Your task to perform on an android device: Search for bose soundlink on ebay, select the first entry, add it to the cart, then select checkout. Image 0: 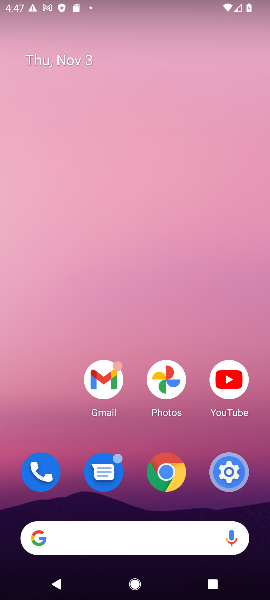
Step 0: click (157, 486)
Your task to perform on an android device: Search for bose soundlink on ebay, select the first entry, add it to the cart, then select checkout. Image 1: 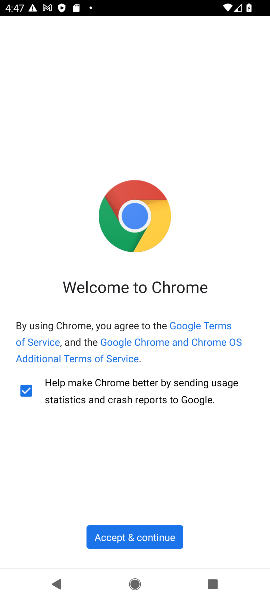
Step 1: click (154, 543)
Your task to perform on an android device: Search for bose soundlink on ebay, select the first entry, add it to the cart, then select checkout. Image 2: 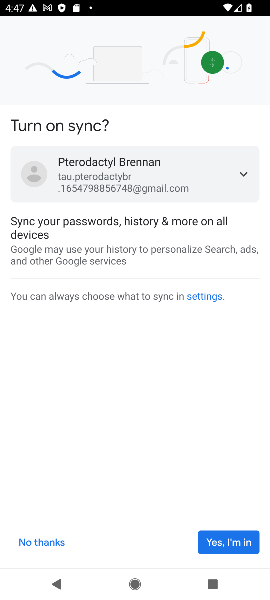
Step 2: click (250, 540)
Your task to perform on an android device: Search for bose soundlink on ebay, select the first entry, add it to the cart, then select checkout. Image 3: 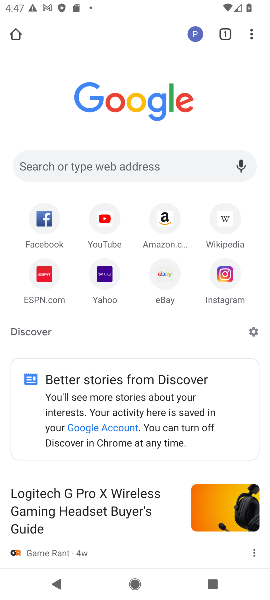
Step 3: click (84, 157)
Your task to perform on an android device: Search for bose soundlink on ebay, select the first entry, add it to the cart, then select checkout. Image 4: 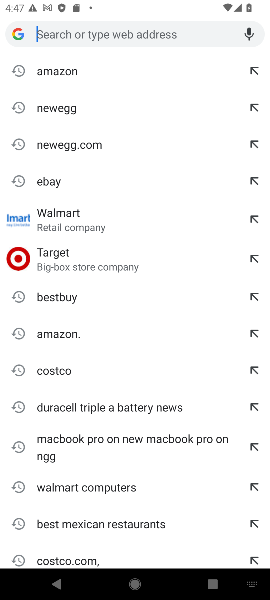
Step 4: type "ebay"
Your task to perform on an android device: Search for bose soundlink on ebay, select the first entry, add it to the cart, then select checkout. Image 5: 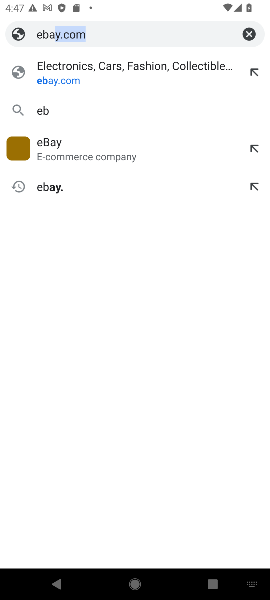
Step 5: type ""
Your task to perform on an android device: Search for bose soundlink on ebay, select the first entry, add it to the cart, then select checkout. Image 6: 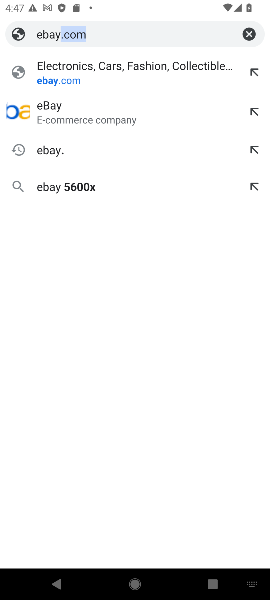
Step 6: click (140, 56)
Your task to perform on an android device: Search for bose soundlink on ebay, select the first entry, add it to the cart, then select checkout. Image 7: 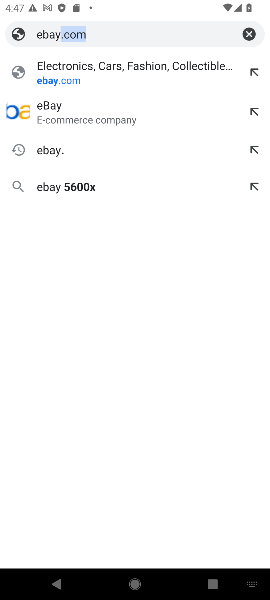
Step 7: click (139, 65)
Your task to perform on an android device: Search for bose soundlink on ebay, select the first entry, add it to the cart, then select checkout. Image 8: 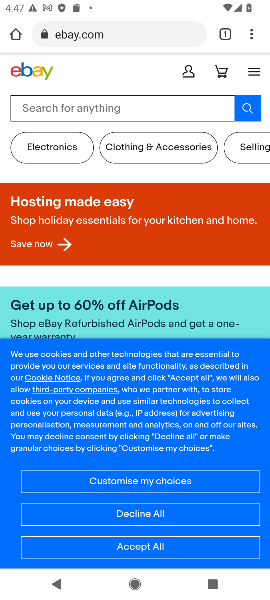
Step 8: click (137, 99)
Your task to perform on an android device: Search for bose soundlink on ebay, select the first entry, add it to the cart, then select checkout. Image 9: 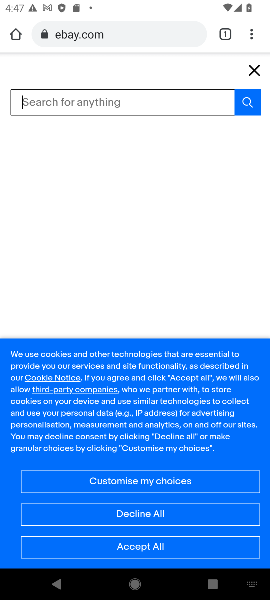
Step 9: click (93, 549)
Your task to perform on an android device: Search for bose soundlink on ebay, select the first entry, add it to the cart, then select checkout. Image 10: 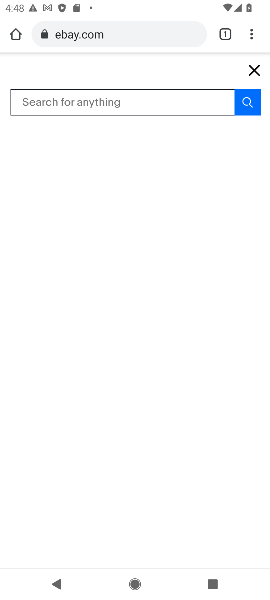
Step 10: click (67, 102)
Your task to perform on an android device: Search for bose soundlink on ebay, select the first entry, add it to the cart, then select checkout. Image 11: 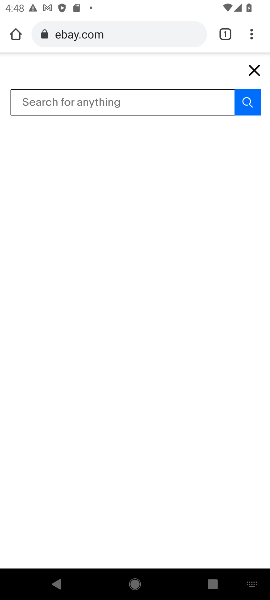
Step 11: type "bose soundlink"
Your task to perform on an android device: Search for bose soundlink on ebay, select the first entry, add it to the cart, then select checkout. Image 12: 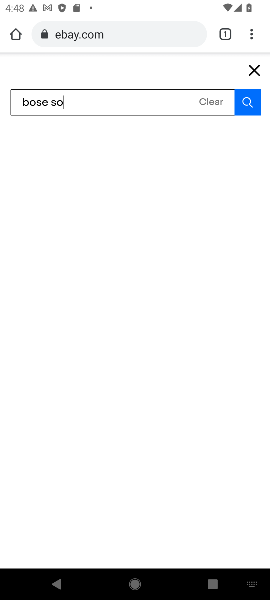
Step 12: type ""
Your task to perform on an android device: Search for bose soundlink on ebay, select the first entry, add it to the cart, then select checkout. Image 13: 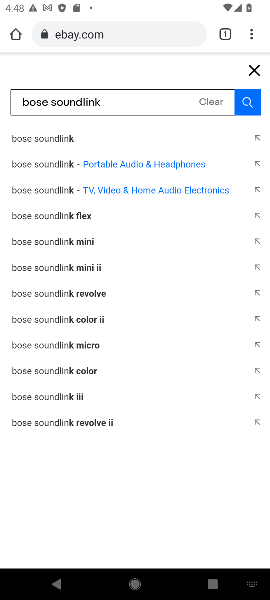
Step 13: click (63, 130)
Your task to perform on an android device: Search for bose soundlink on ebay, select the first entry, add it to the cart, then select checkout. Image 14: 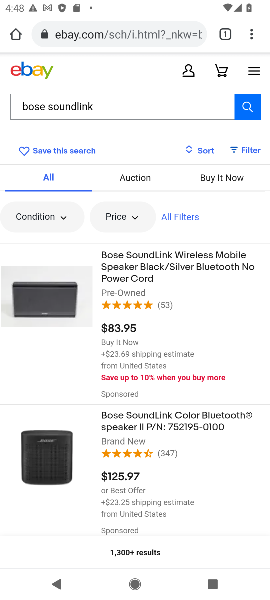
Step 14: click (169, 259)
Your task to perform on an android device: Search for bose soundlink on ebay, select the first entry, add it to the cart, then select checkout. Image 15: 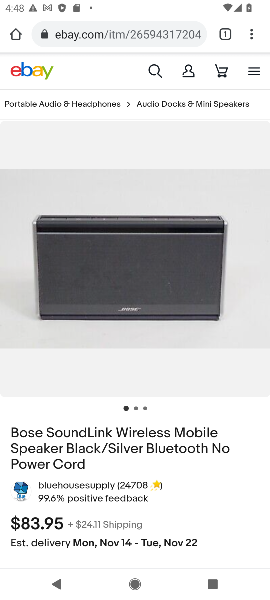
Step 15: drag from (203, 464) to (157, 383)
Your task to perform on an android device: Search for bose soundlink on ebay, select the first entry, add it to the cart, then select checkout. Image 16: 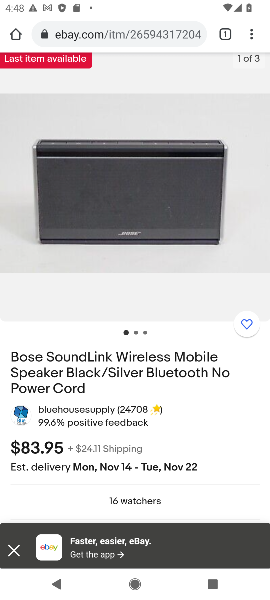
Step 16: click (10, 545)
Your task to perform on an android device: Search for bose soundlink on ebay, select the first entry, add it to the cart, then select checkout. Image 17: 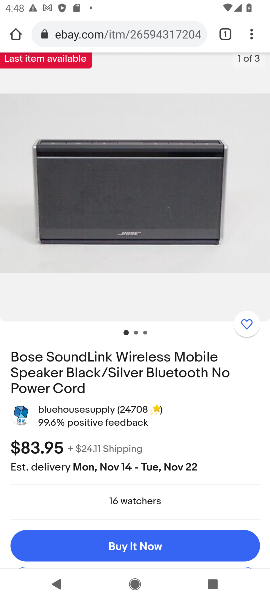
Step 17: drag from (149, 486) to (169, 293)
Your task to perform on an android device: Search for bose soundlink on ebay, select the first entry, add it to the cart, then select checkout. Image 18: 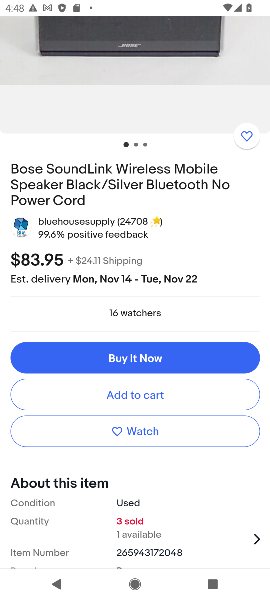
Step 18: click (145, 397)
Your task to perform on an android device: Search for bose soundlink on ebay, select the first entry, add it to the cart, then select checkout. Image 19: 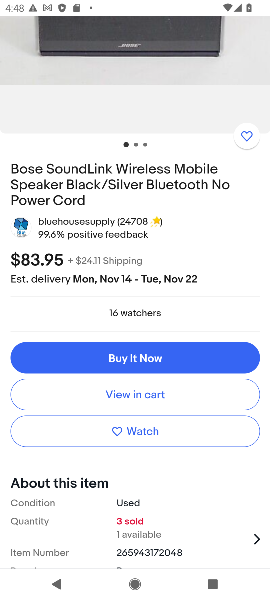
Step 19: click (145, 397)
Your task to perform on an android device: Search for bose soundlink on ebay, select the first entry, add it to the cart, then select checkout. Image 20: 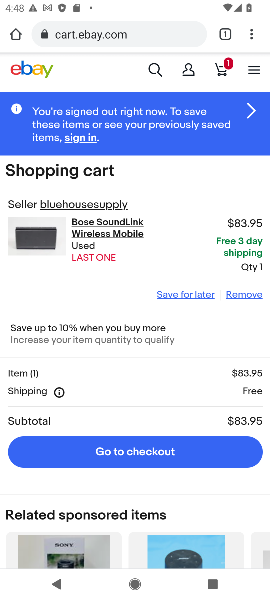
Step 20: click (145, 449)
Your task to perform on an android device: Search for bose soundlink on ebay, select the first entry, add it to the cart, then select checkout. Image 21: 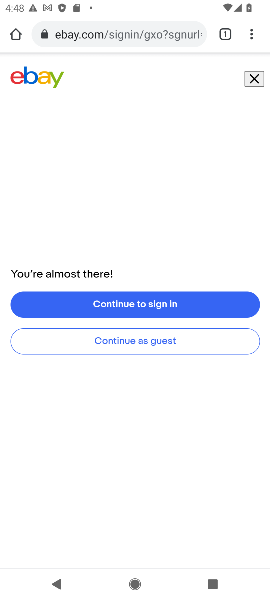
Step 21: click (151, 355)
Your task to perform on an android device: Search for bose soundlink on ebay, select the first entry, add it to the cart, then select checkout. Image 22: 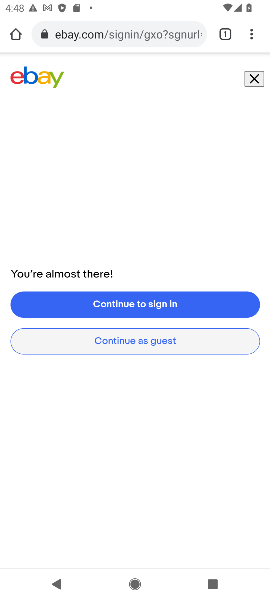
Step 22: click (151, 346)
Your task to perform on an android device: Search for bose soundlink on ebay, select the first entry, add it to the cart, then select checkout. Image 23: 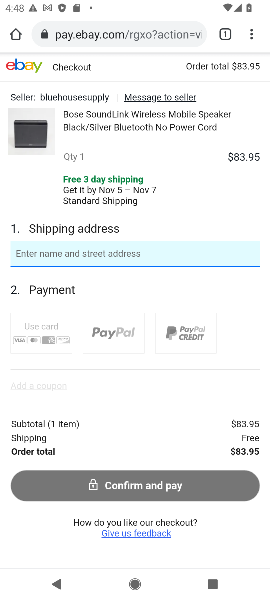
Step 23: task complete